Your task to perform on an android device: toggle location history Image 0: 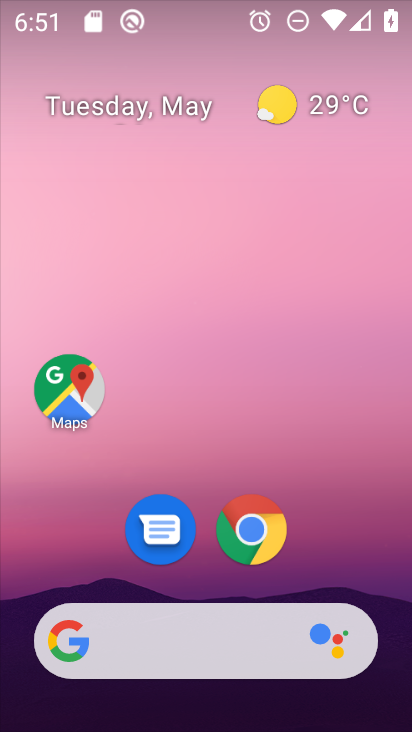
Step 0: click (277, 28)
Your task to perform on an android device: toggle location history Image 1: 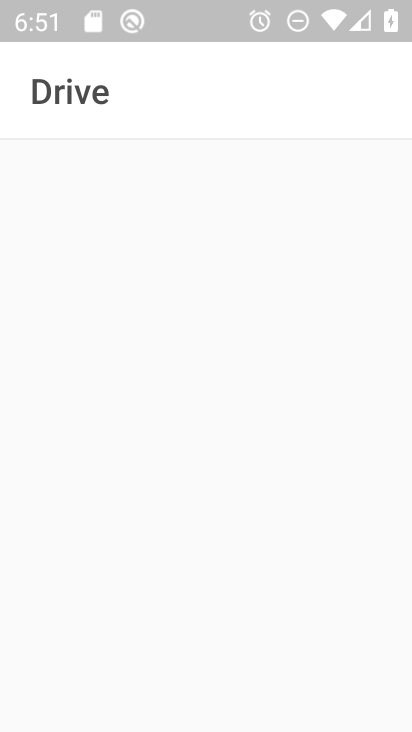
Step 1: press home button
Your task to perform on an android device: toggle location history Image 2: 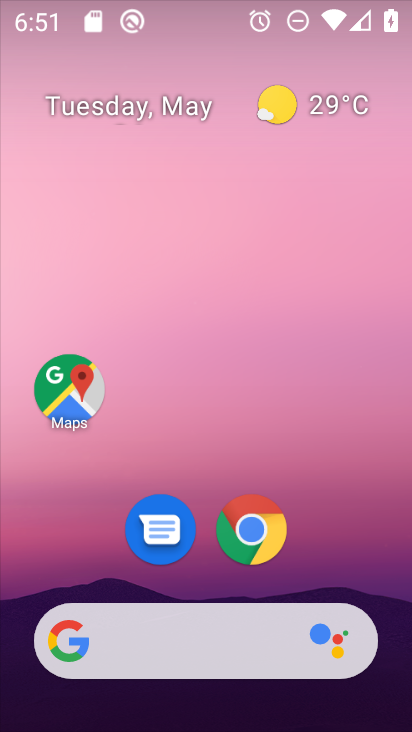
Step 2: drag from (387, 613) to (220, 24)
Your task to perform on an android device: toggle location history Image 3: 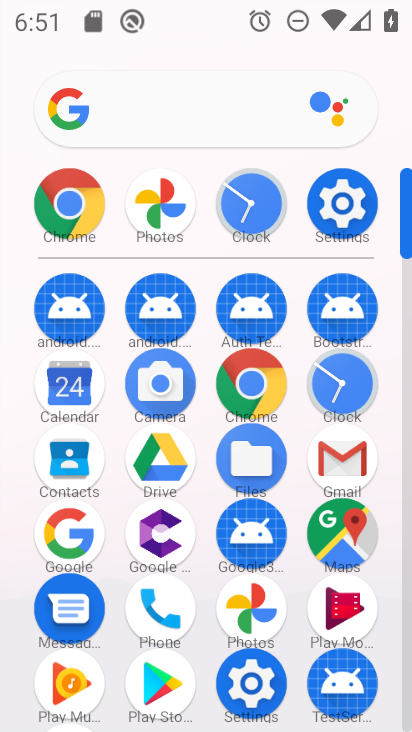
Step 3: click (353, 202)
Your task to perform on an android device: toggle location history Image 4: 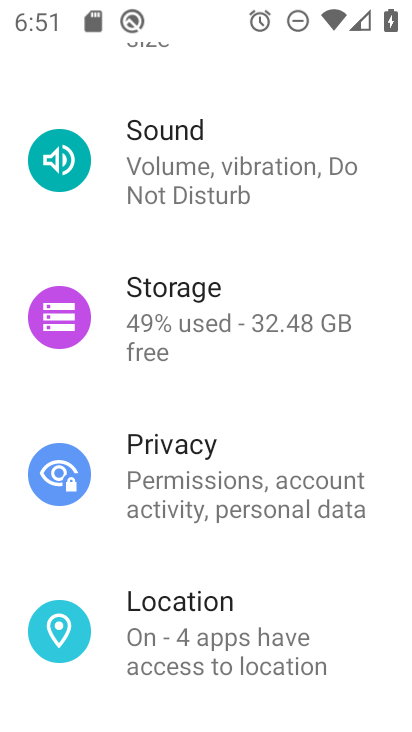
Step 4: click (244, 630)
Your task to perform on an android device: toggle location history Image 5: 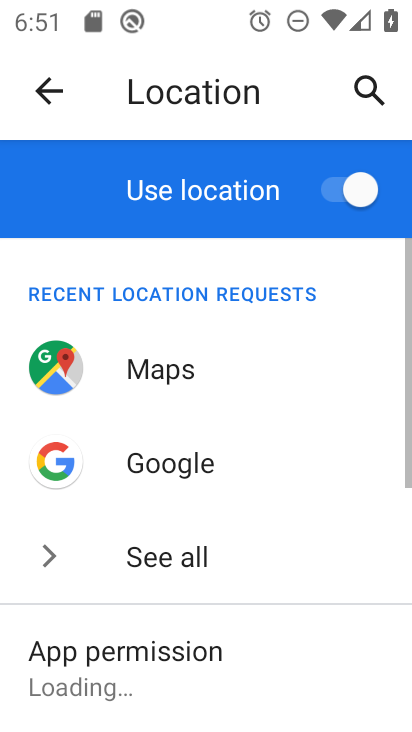
Step 5: drag from (242, 624) to (207, 153)
Your task to perform on an android device: toggle location history Image 6: 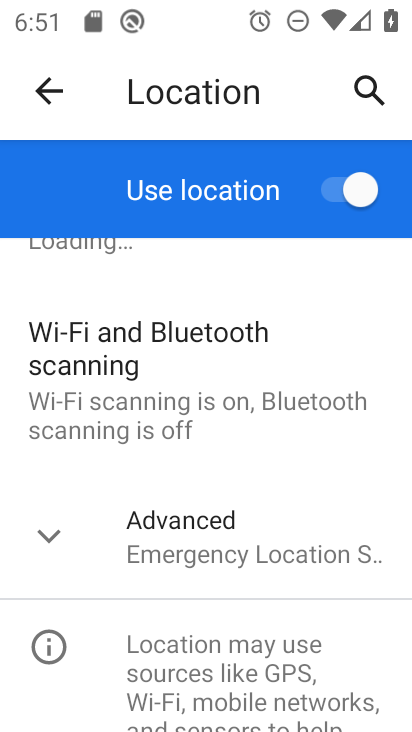
Step 6: click (211, 527)
Your task to perform on an android device: toggle location history Image 7: 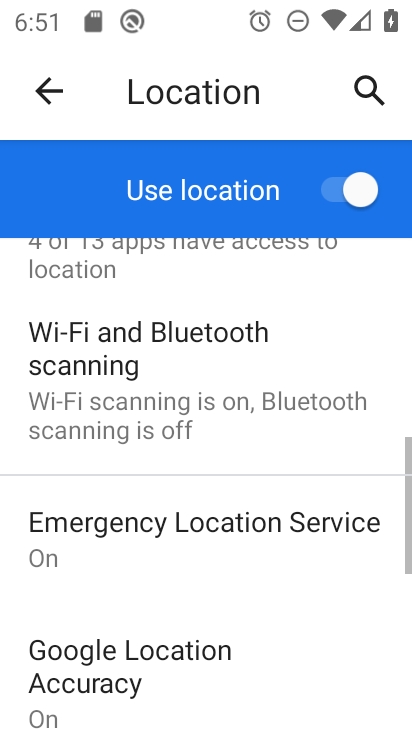
Step 7: drag from (171, 621) to (175, 229)
Your task to perform on an android device: toggle location history Image 8: 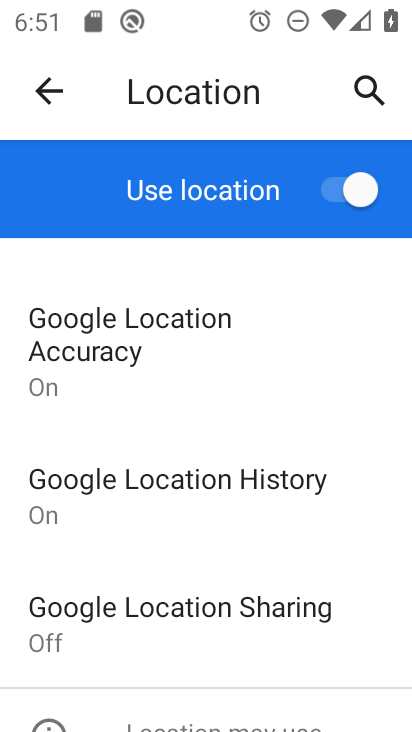
Step 8: click (224, 479)
Your task to perform on an android device: toggle location history Image 9: 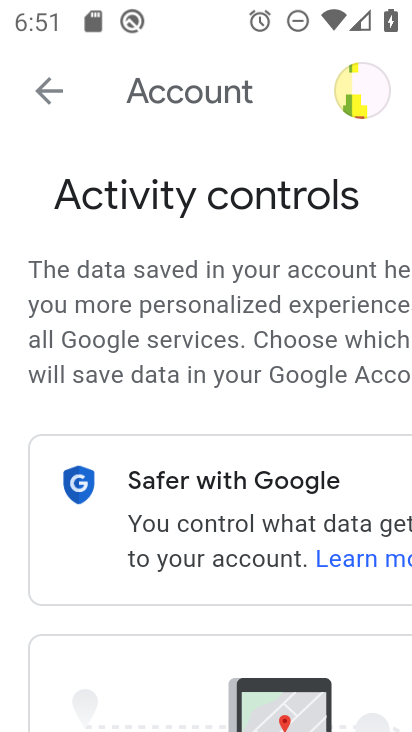
Step 9: drag from (361, 643) to (198, 105)
Your task to perform on an android device: toggle location history Image 10: 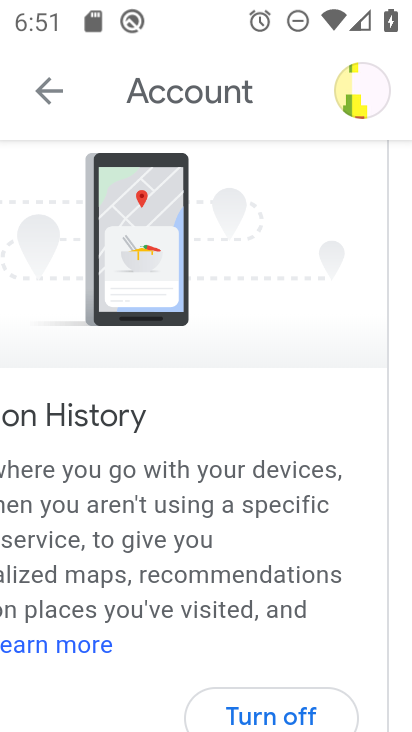
Step 10: drag from (187, 557) to (208, 272)
Your task to perform on an android device: toggle location history Image 11: 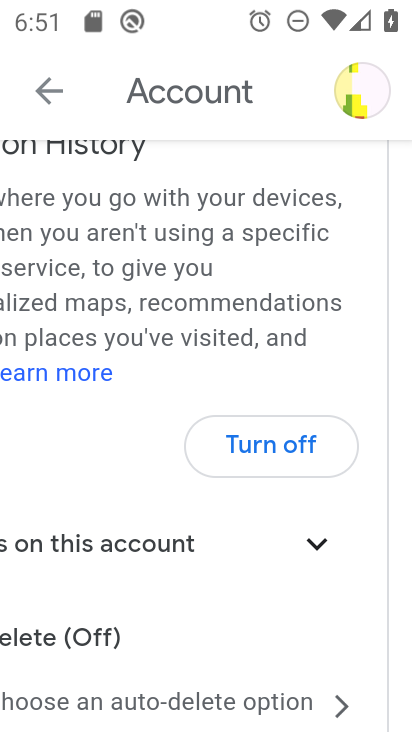
Step 11: click (312, 455)
Your task to perform on an android device: toggle location history Image 12: 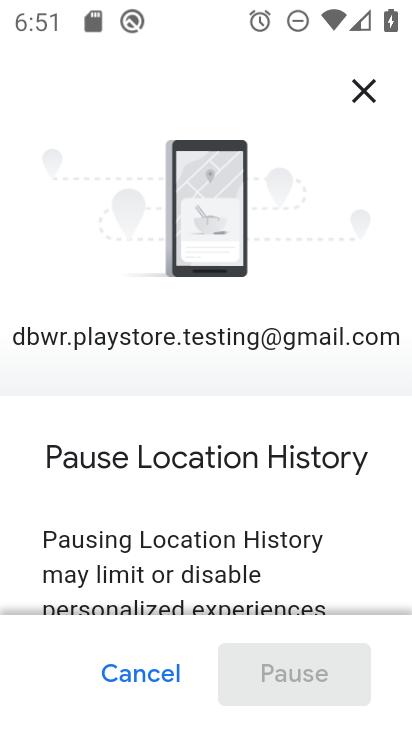
Step 12: task complete